Your task to perform on an android device: Do I have any events this weekend? Image 0: 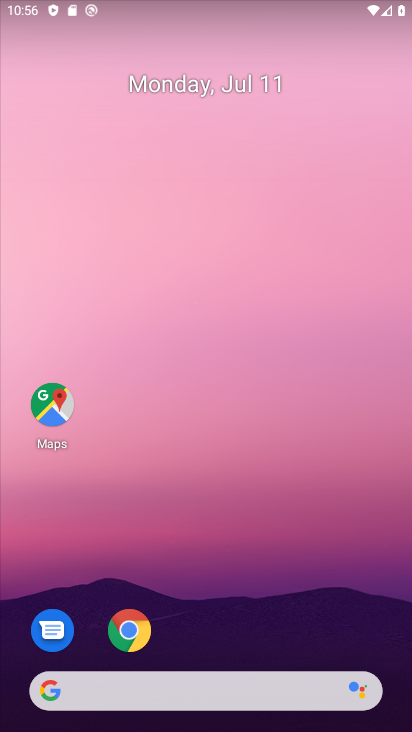
Step 0: drag from (299, 641) to (259, 0)
Your task to perform on an android device: Do I have any events this weekend? Image 1: 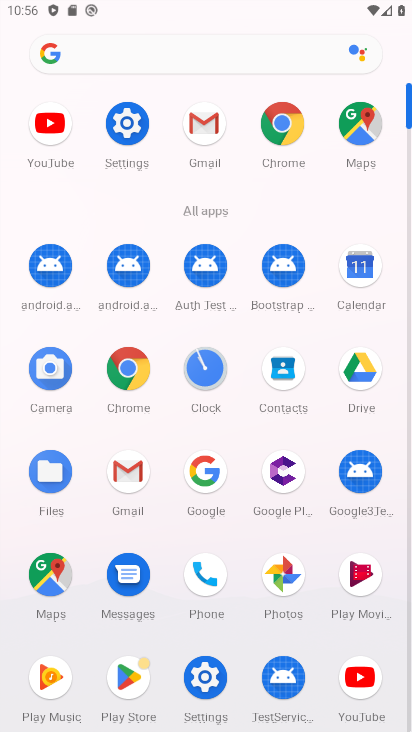
Step 1: click (368, 264)
Your task to perform on an android device: Do I have any events this weekend? Image 2: 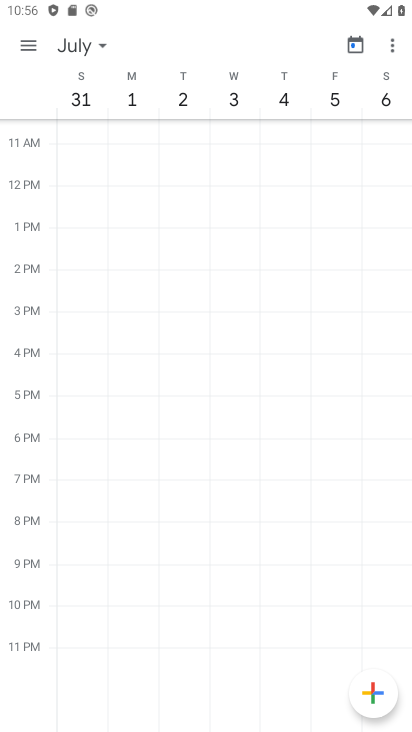
Step 2: click (20, 39)
Your task to perform on an android device: Do I have any events this weekend? Image 3: 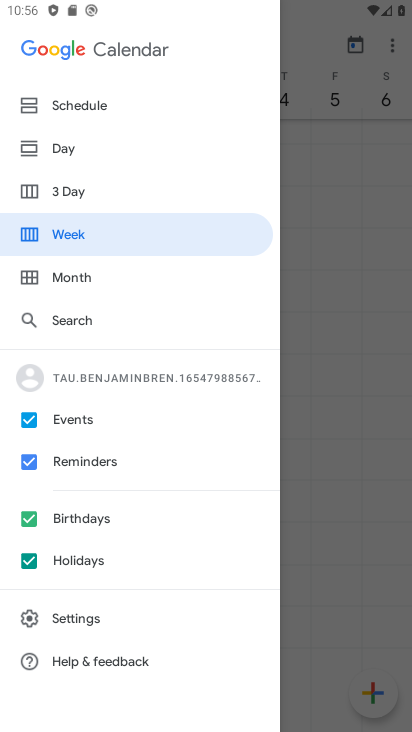
Step 3: click (100, 565)
Your task to perform on an android device: Do I have any events this weekend? Image 4: 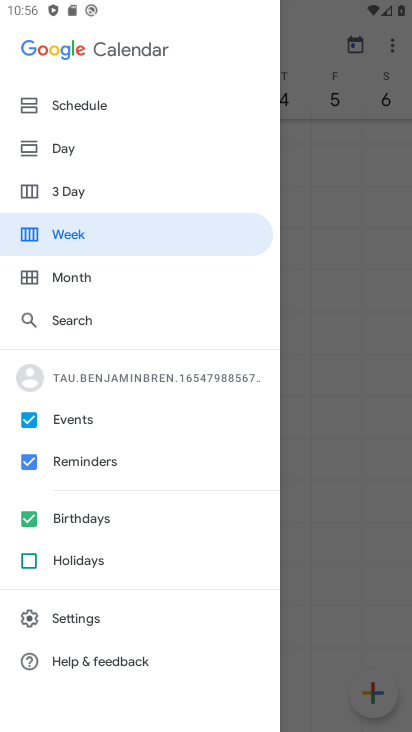
Step 4: click (83, 511)
Your task to perform on an android device: Do I have any events this weekend? Image 5: 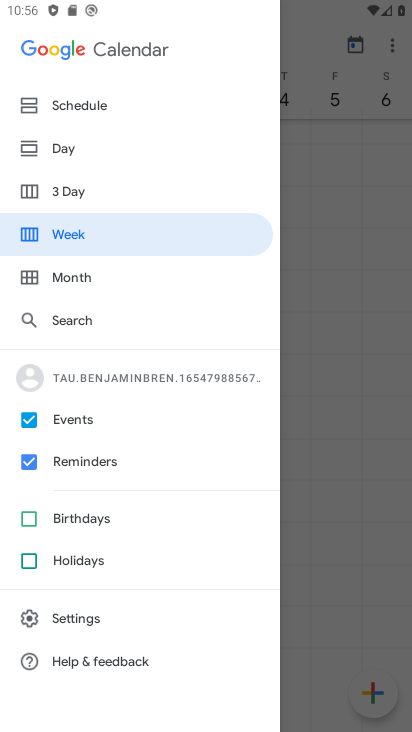
Step 5: click (82, 463)
Your task to perform on an android device: Do I have any events this weekend? Image 6: 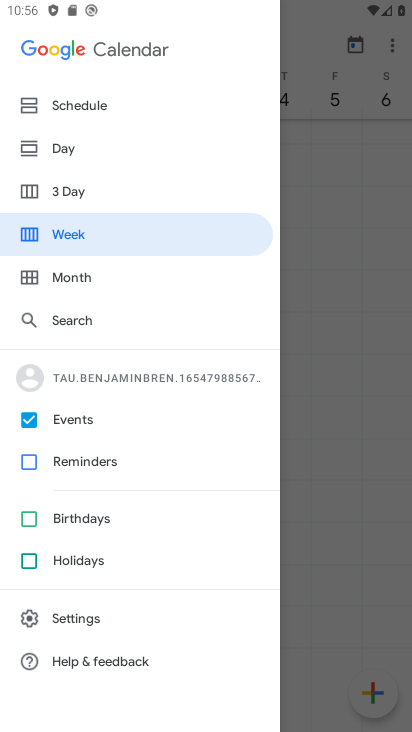
Step 6: click (378, 407)
Your task to perform on an android device: Do I have any events this weekend? Image 7: 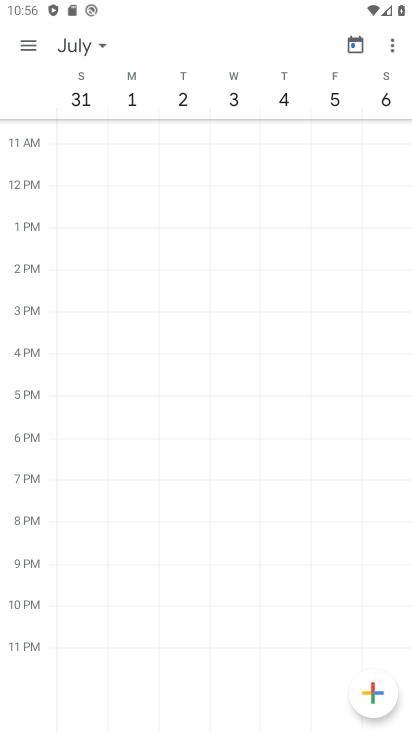
Step 7: task complete